Your task to perform on an android device: Open Google Chrome and click the shortcut for Amazon.com Image 0: 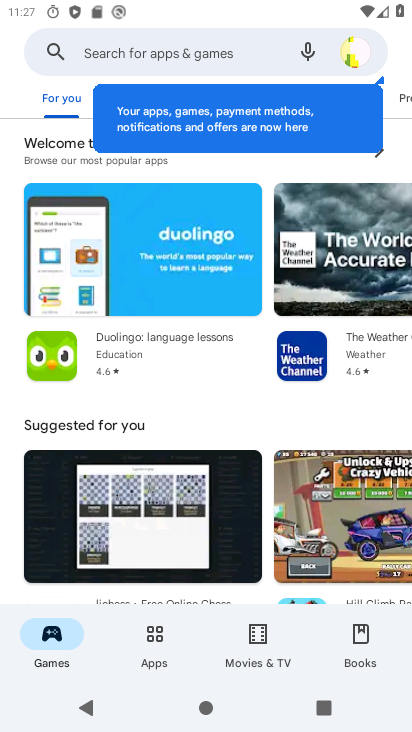
Step 0: press home button
Your task to perform on an android device: Open Google Chrome and click the shortcut for Amazon.com Image 1: 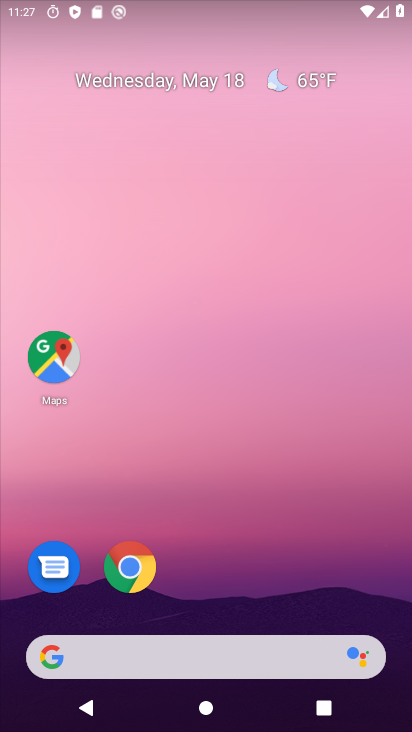
Step 1: drag from (241, 585) to (291, 67)
Your task to perform on an android device: Open Google Chrome and click the shortcut for Amazon.com Image 2: 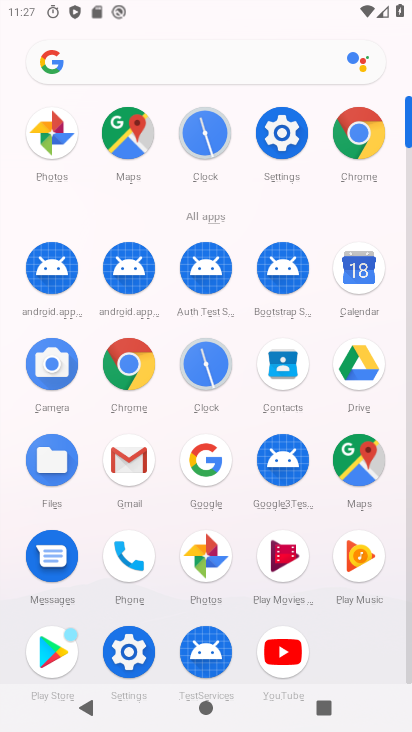
Step 2: click (127, 370)
Your task to perform on an android device: Open Google Chrome and click the shortcut for Amazon.com Image 3: 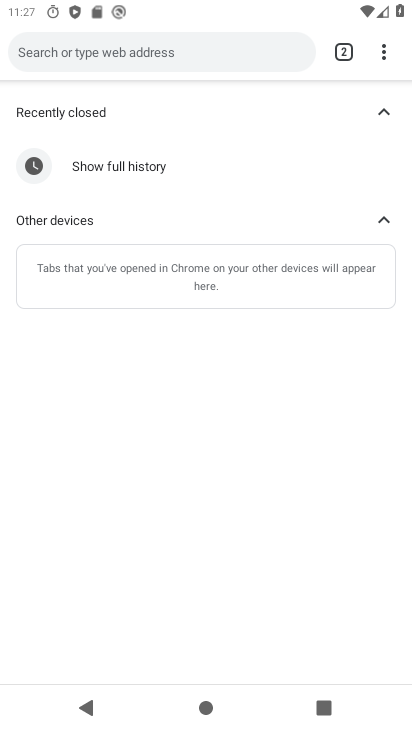
Step 3: click (345, 52)
Your task to perform on an android device: Open Google Chrome and click the shortcut for Amazon.com Image 4: 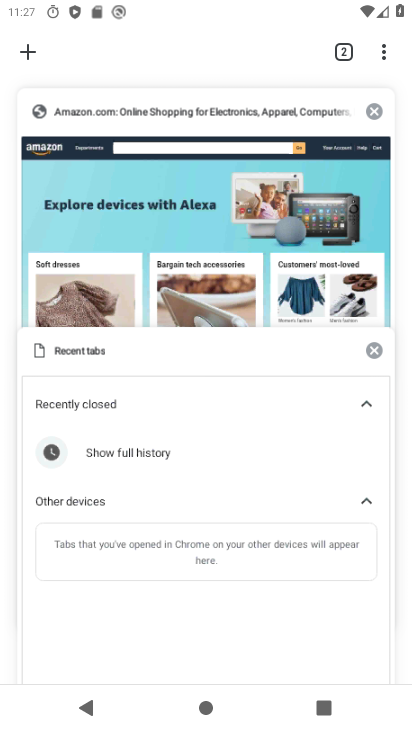
Step 4: click (124, 166)
Your task to perform on an android device: Open Google Chrome and click the shortcut for Amazon.com Image 5: 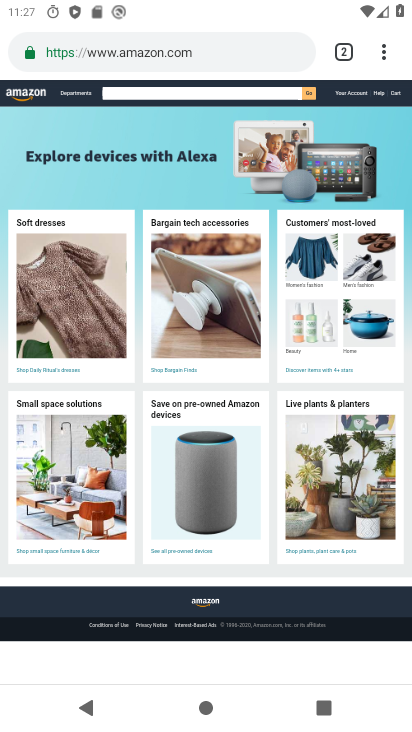
Step 5: task complete